Your task to perform on an android device: uninstall "Google Play Games" Image 0: 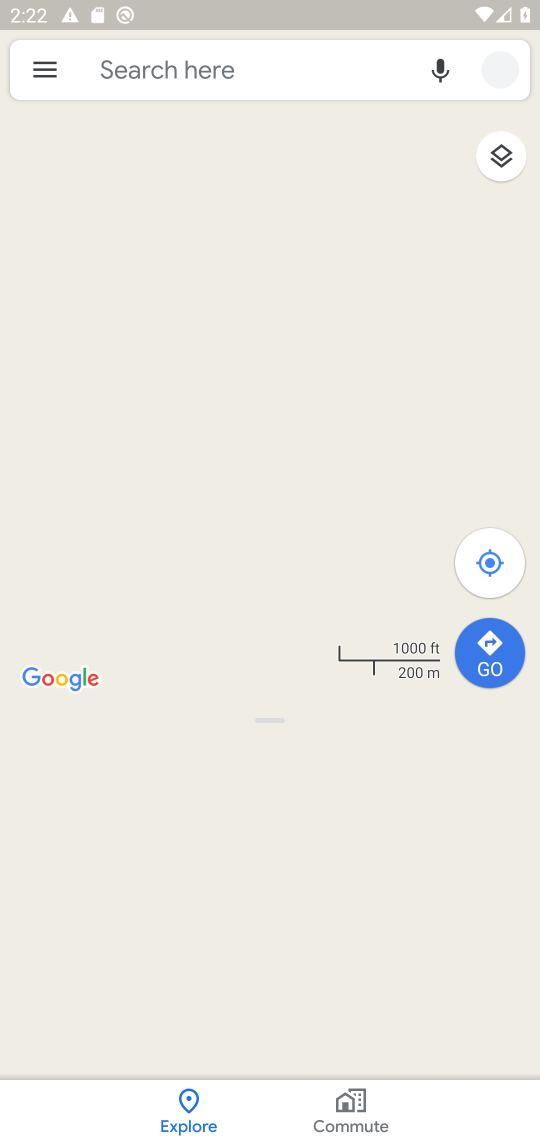
Step 0: press home button
Your task to perform on an android device: uninstall "Google Play Games" Image 1: 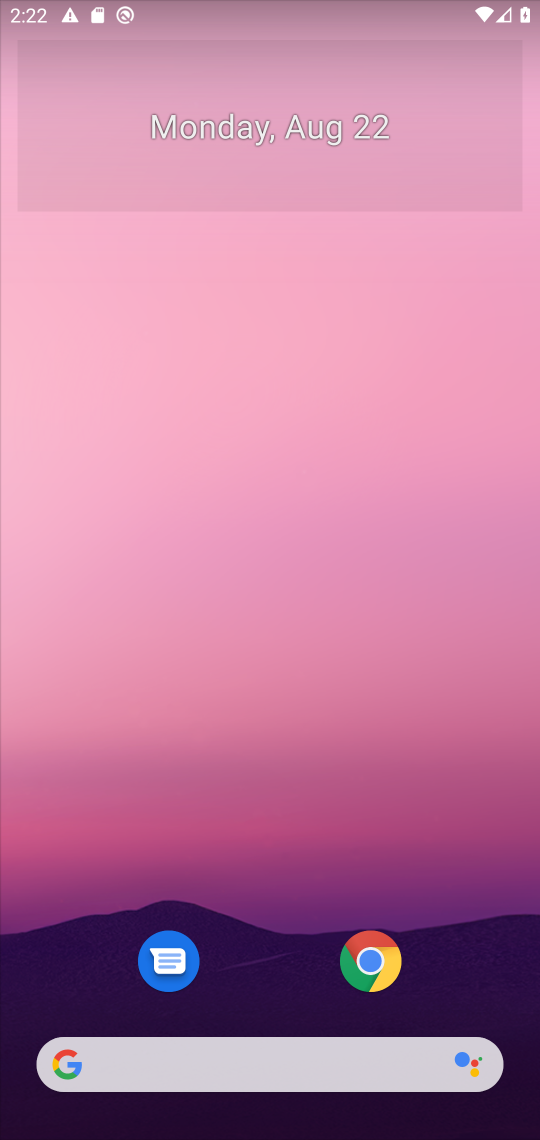
Step 1: drag from (472, 916) to (490, 42)
Your task to perform on an android device: uninstall "Google Play Games" Image 2: 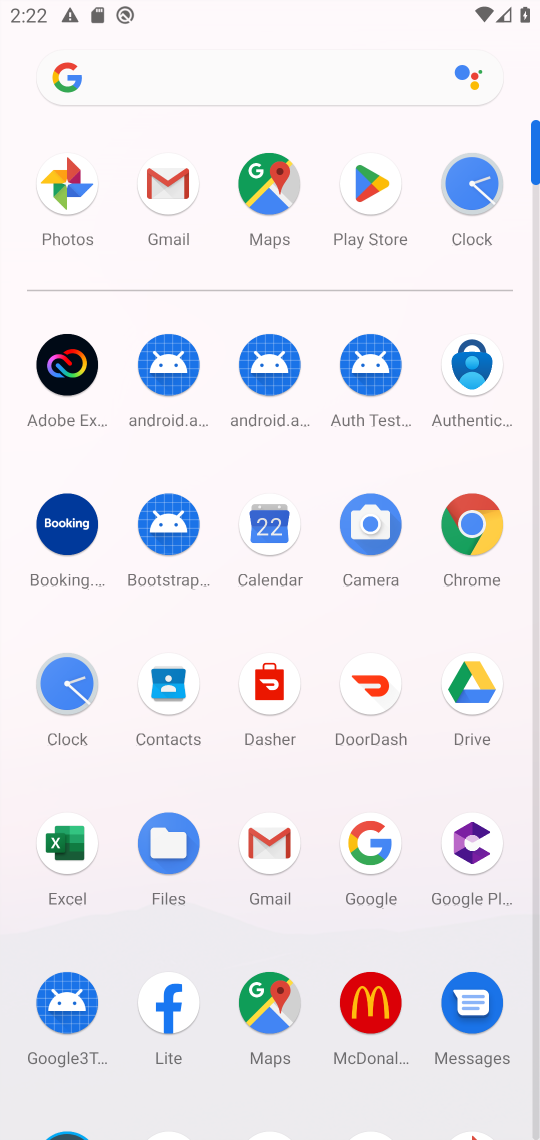
Step 2: click (376, 185)
Your task to perform on an android device: uninstall "Google Play Games" Image 3: 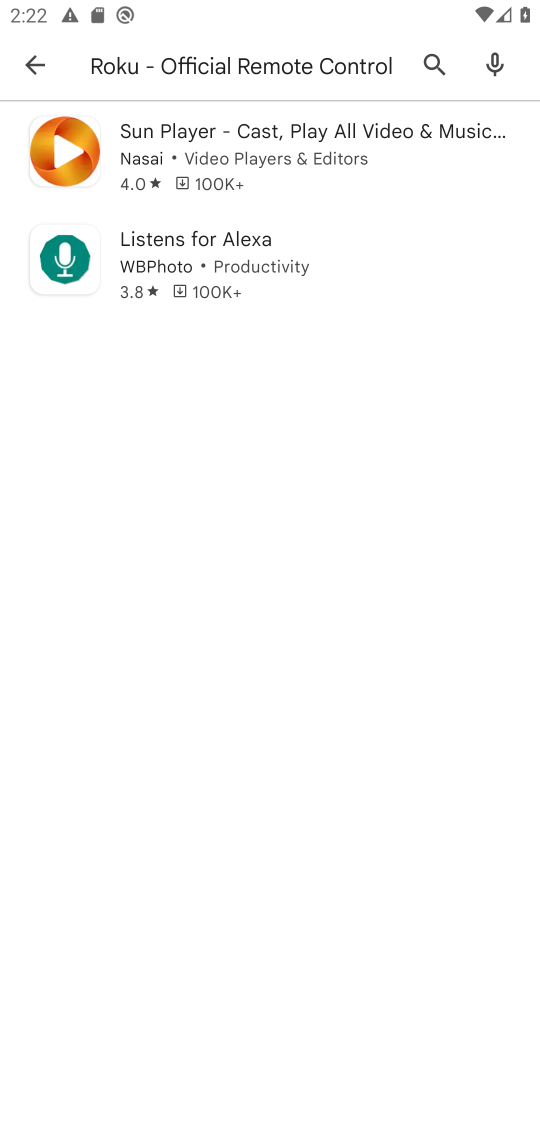
Step 3: press back button
Your task to perform on an android device: uninstall "Google Play Games" Image 4: 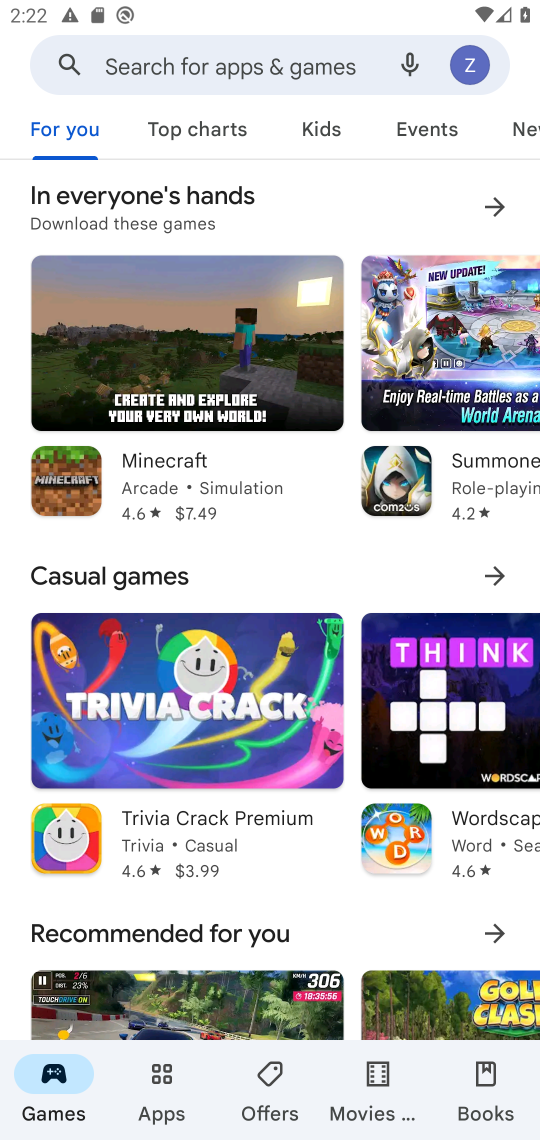
Step 4: click (276, 60)
Your task to perform on an android device: uninstall "Google Play Games" Image 5: 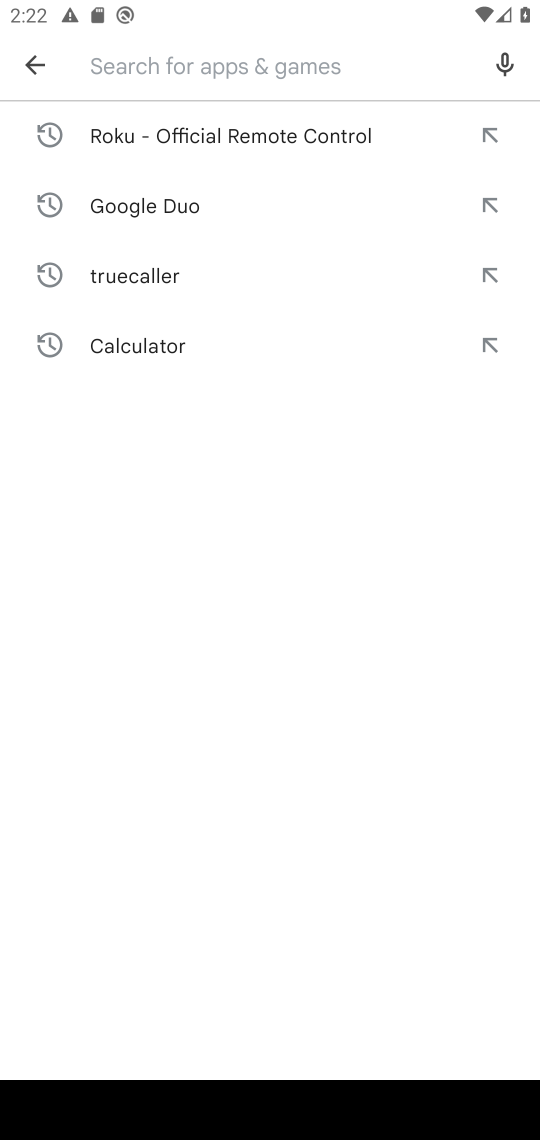
Step 5: type "Google Play Games"
Your task to perform on an android device: uninstall "Google Play Games" Image 6: 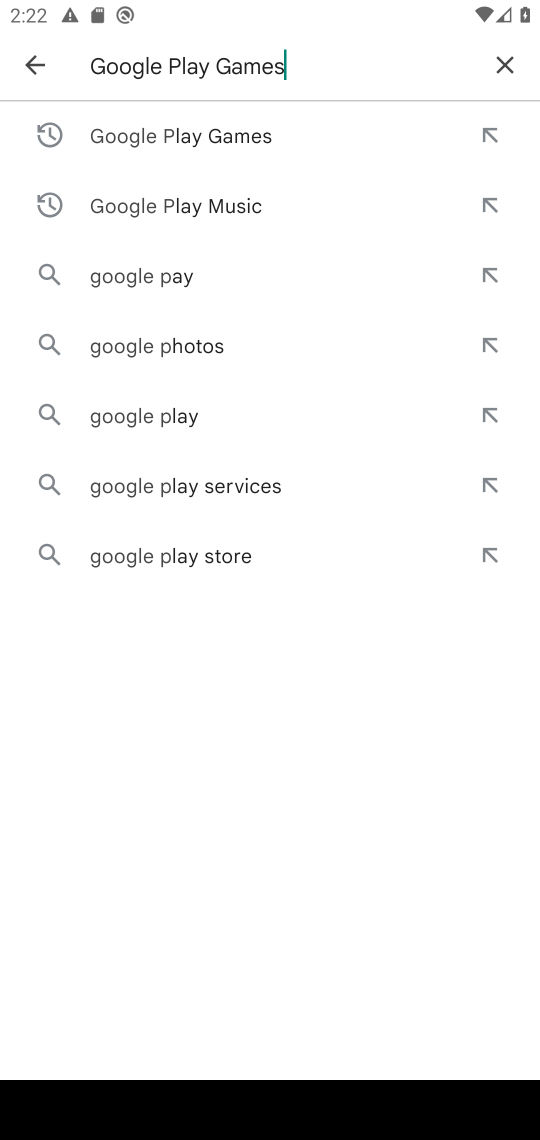
Step 6: press enter
Your task to perform on an android device: uninstall "Google Play Games" Image 7: 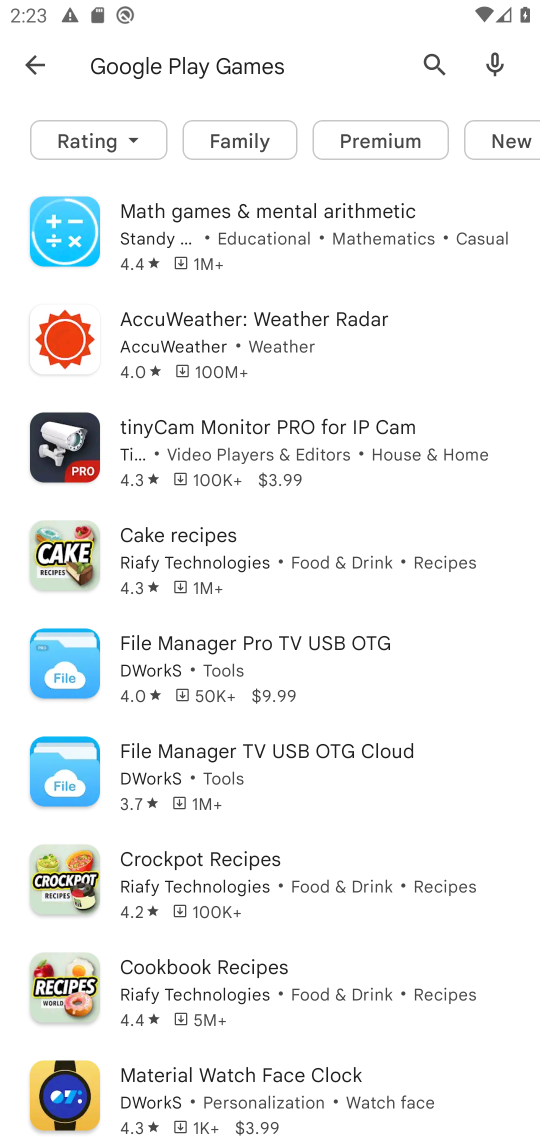
Step 7: task complete